Your task to perform on an android device: Go to settings Image 0: 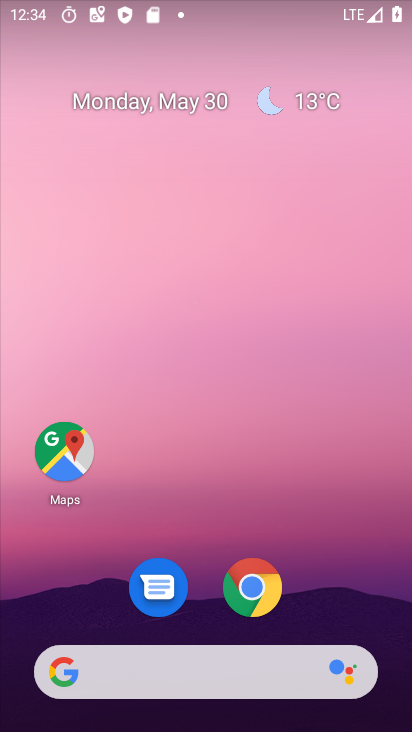
Step 0: drag from (320, 440) to (297, 110)
Your task to perform on an android device: Go to settings Image 1: 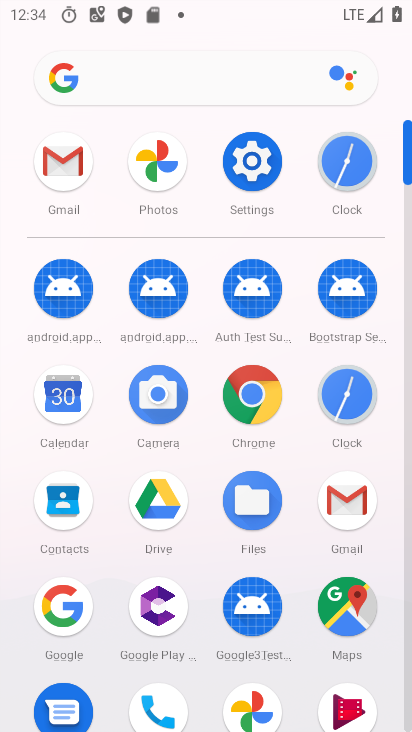
Step 1: click (268, 168)
Your task to perform on an android device: Go to settings Image 2: 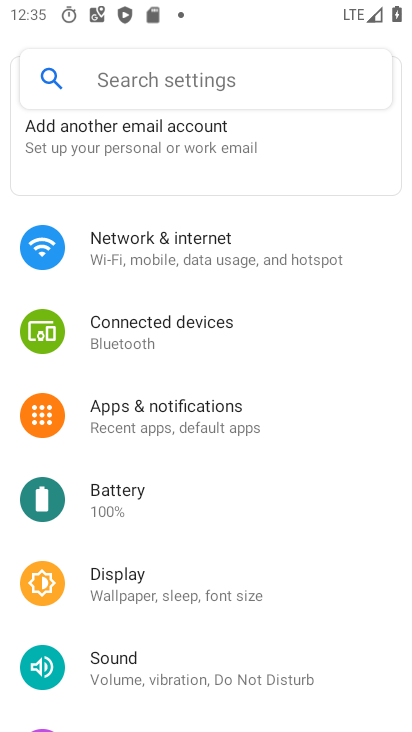
Step 2: task complete